Your task to perform on an android device: turn on translation in the chrome app Image 0: 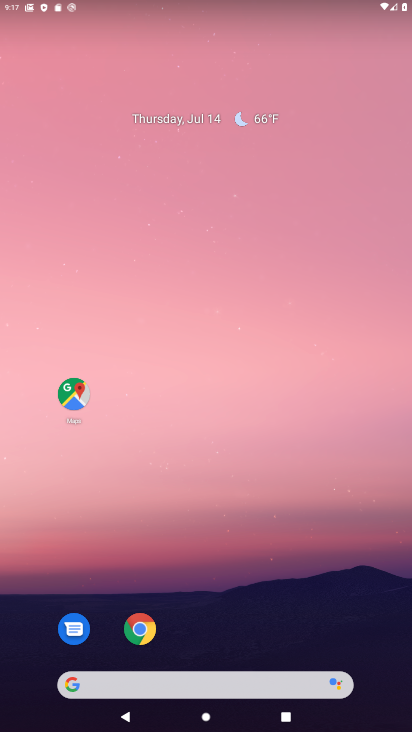
Step 0: press home button
Your task to perform on an android device: turn on translation in the chrome app Image 1: 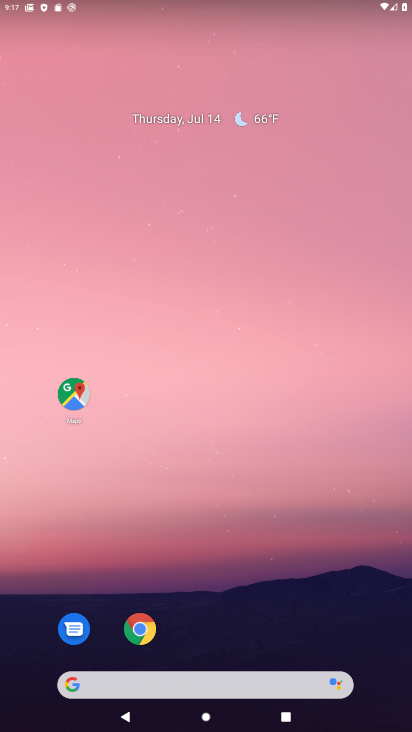
Step 1: click (136, 633)
Your task to perform on an android device: turn on translation in the chrome app Image 2: 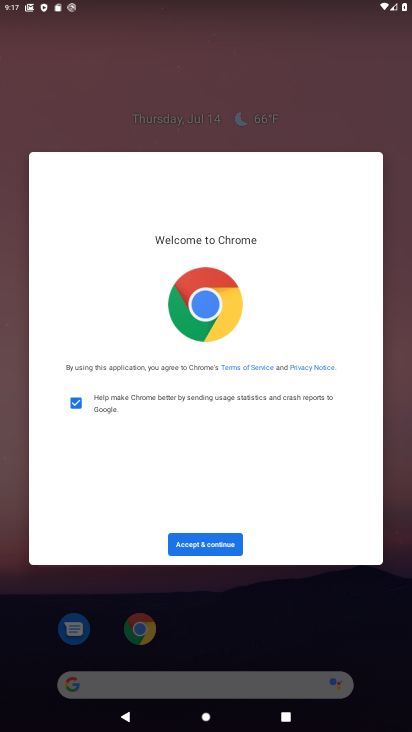
Step 2: click (177, 550)
Your task to perform on an android device: turn on translation in the chrome app Image 3: 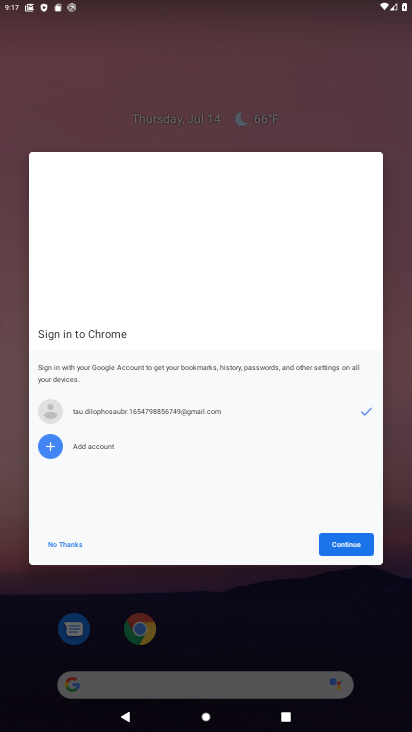
Step 3: click (335, 543)
Your task to perform on an android device: turn on translation in the chrome app Image 4: 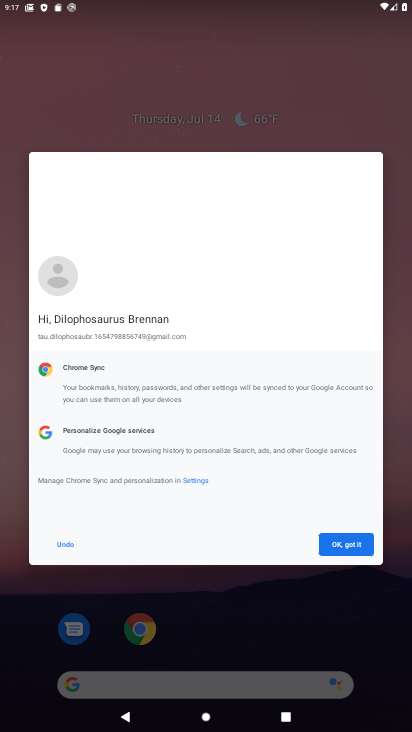
Step 4: click (335, 543)
Your task to perform on an android device: turn on translation in the chrome app Image 5: 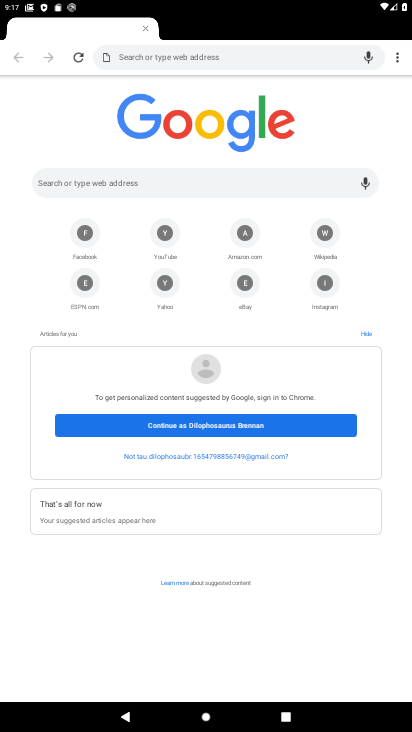
Step 5: drag from (392, 61) to (282, 264)
Your task to perform on an android device: turn on translation in the chrome app Image 6: 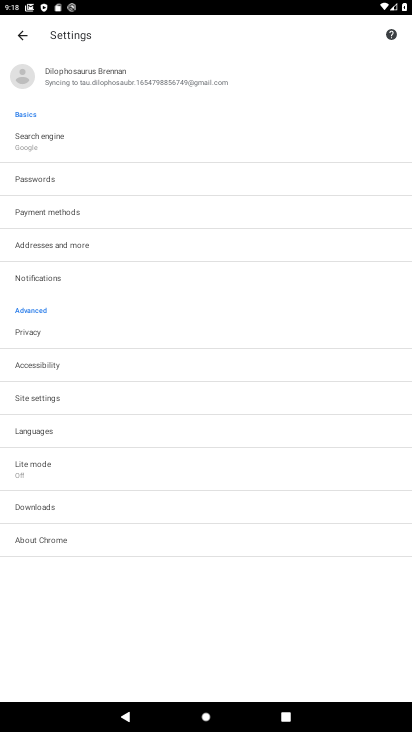
Step 6: click (37, 428)
Your task to perform on an android device: turn on translation in the chrome app Image 7: 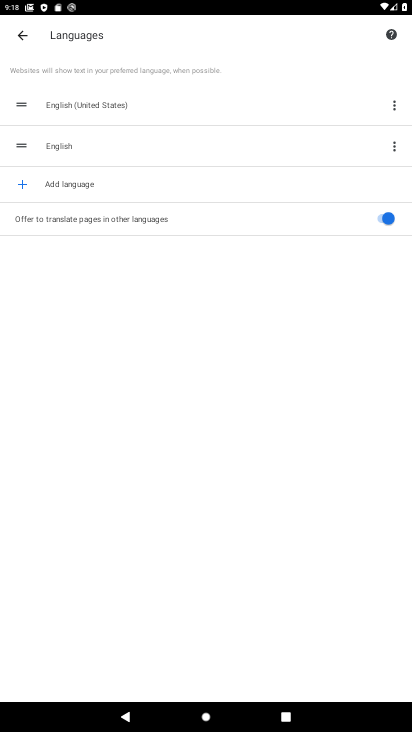
Step 7: task complete